Your task to perform on an android device: make emails show in primary in the gmail app Image 0: 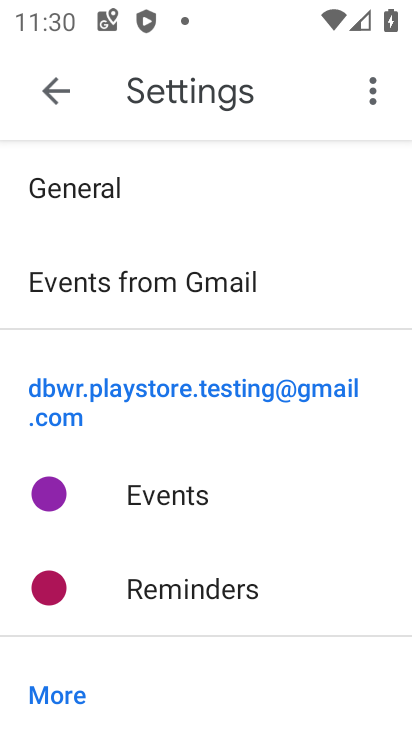
Step 0: press home button
Your task to perform on an android device: make emails show in primary in the gmail app Image 1: 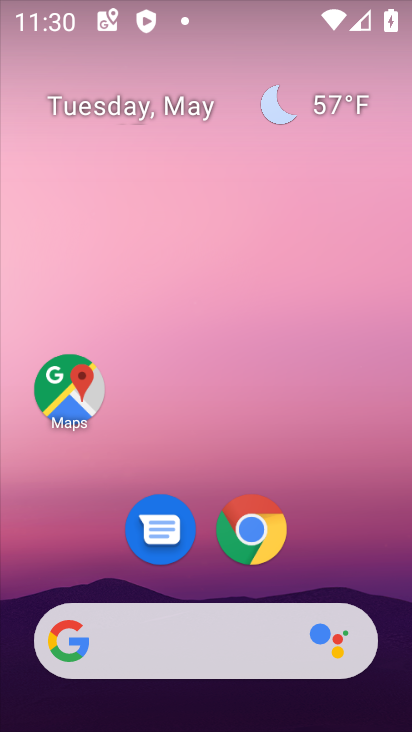
Step 1: drag from (207, 572) to (228, 276)
Your task to perform on an android device: make emails show in primary in the gmail app Image 2: 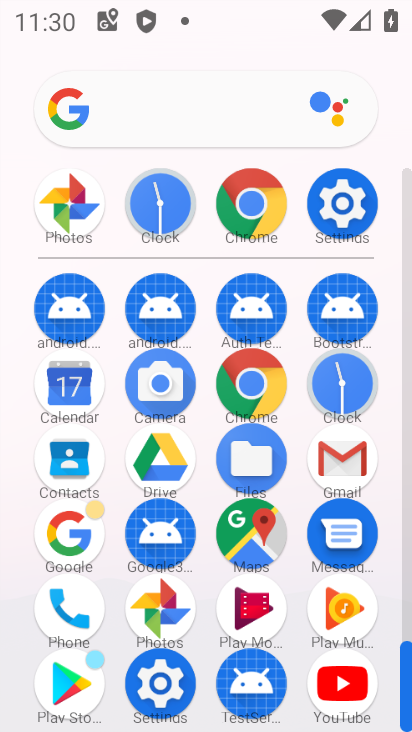
Step 2: click (351, 455)
Your task to perform on an android device: make emails show in primary in the gmail app Image 3: 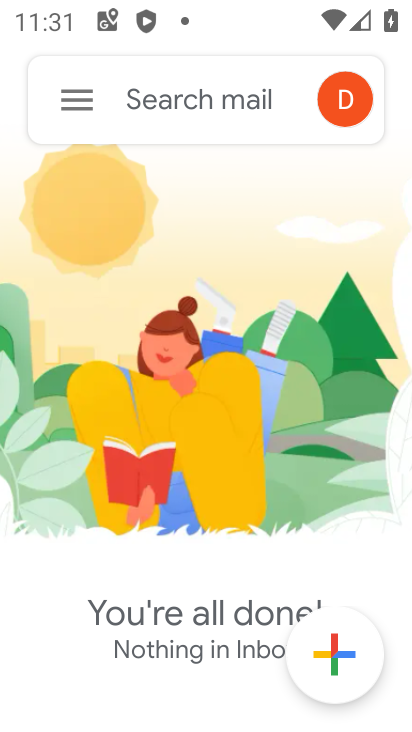
Step 3: click (89, 98)
Your task to perform on an android device: make emails show in primary in the gmail app Image 4: 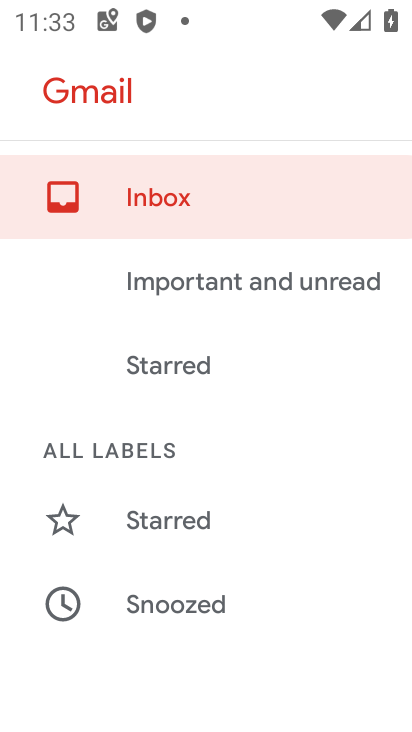
Step 4: click (287, 468)
Your task to perform on an android device: make emails show in primary in the gmail app Image 5: 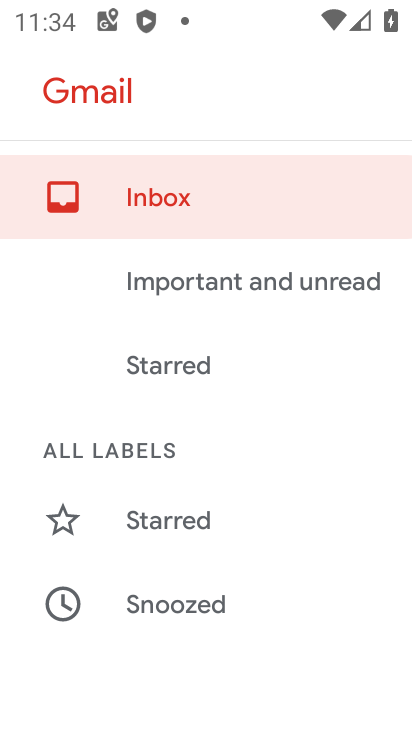
Step 5: task complete